Your task to perform on an android device: Open battery settings Image 0: 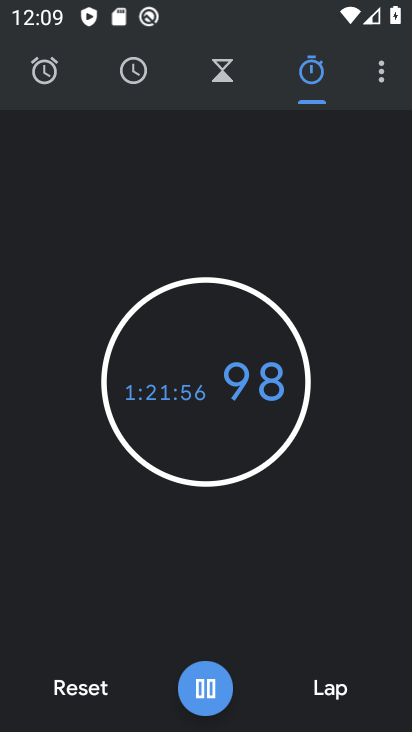
Step 0: press back button
Your task to perform on an android device: Open battery settings Image 1: 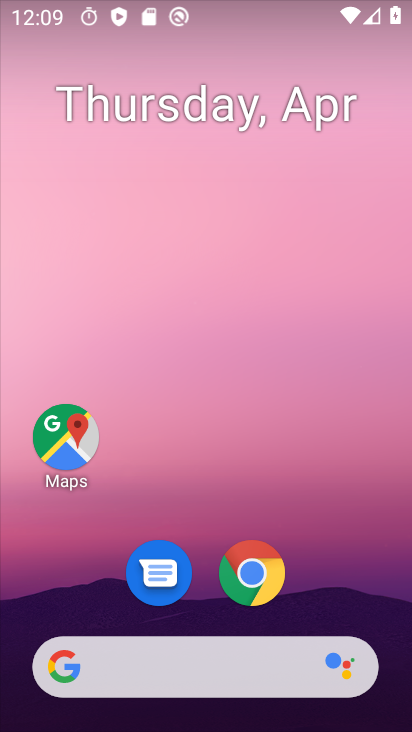
Step 1: drag from (347, 315) to (334, 158)
Your task to perform on an android device: Open battery settings Image 2: 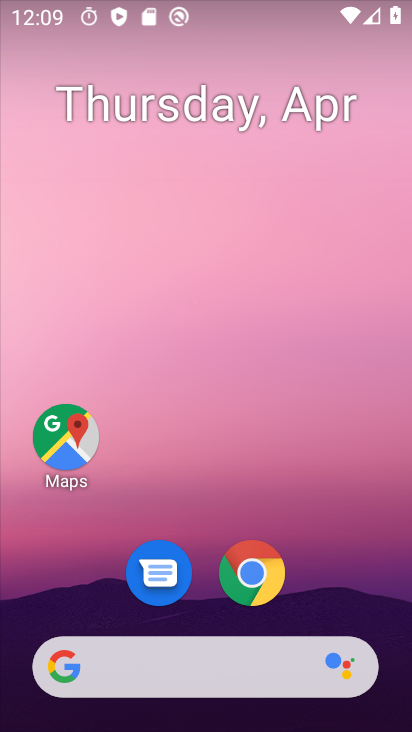
Step 2: drag from (372, 467) to (361, 183)
Your task to perform on an android device: Open battery settings Image 3: 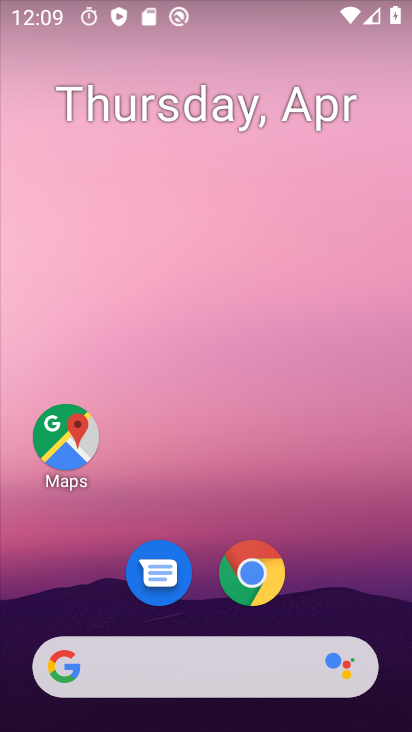
Step 3: drag from (375, 538) to (336, 242)
Your task to perform on an android device: Open battery settings Image 4: 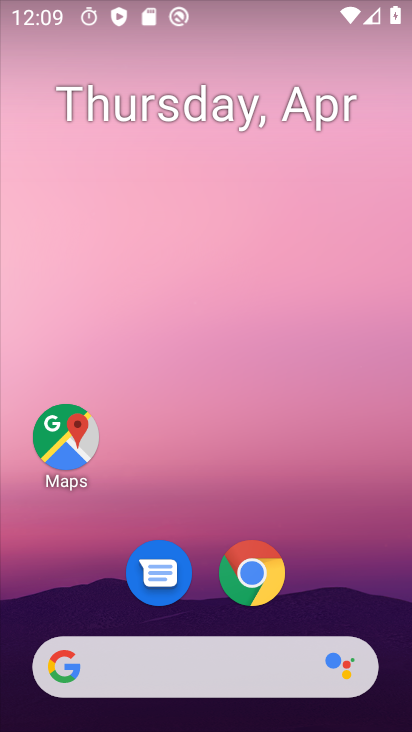
Step 4: drag from (355, 522) to (313, 196)
Your task to perform on an android device: Open battery settings Image 5: 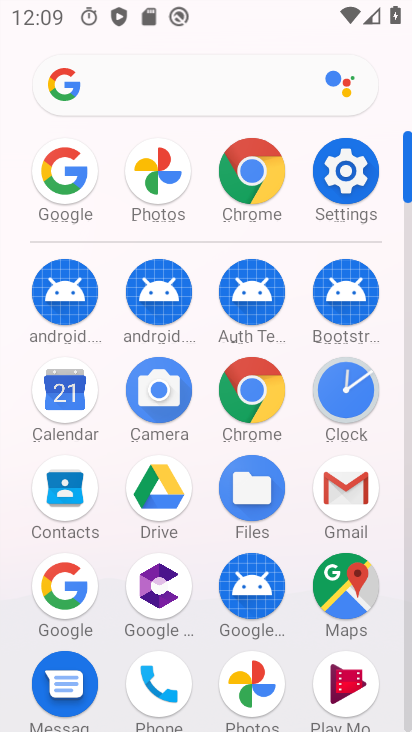
Step 5: click (351, 159)
Your task to perform on an android device: Open battery settings Image 6: 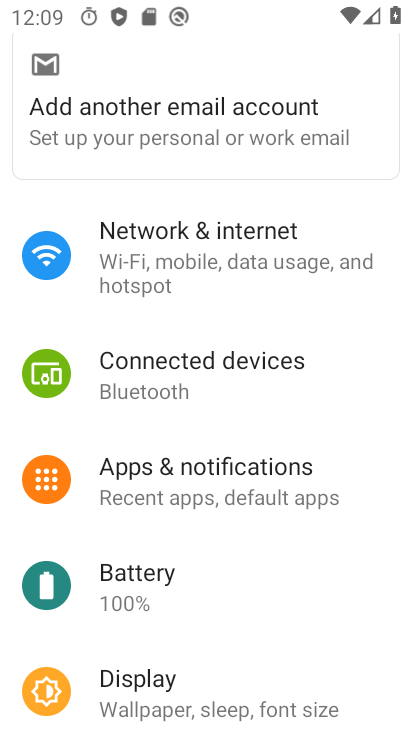
Step 6: click (93, 579)
Your task to perform on an android device: Open battery settings Image 7: 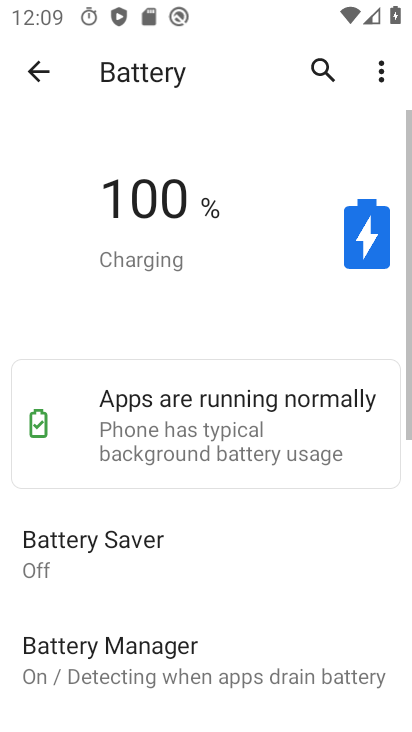
Step 7: task complete